Your task to perform on an android device: turn off improve location accuracy Image 0: 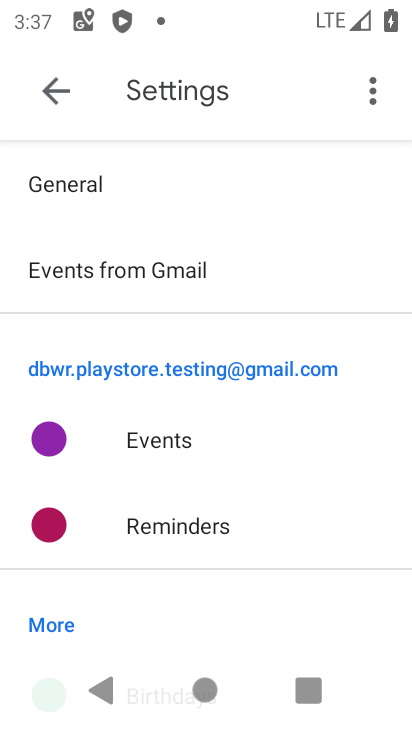
Step 0: press home button
Your task to perform on an android device: turn off improve location accuracy Image 1: 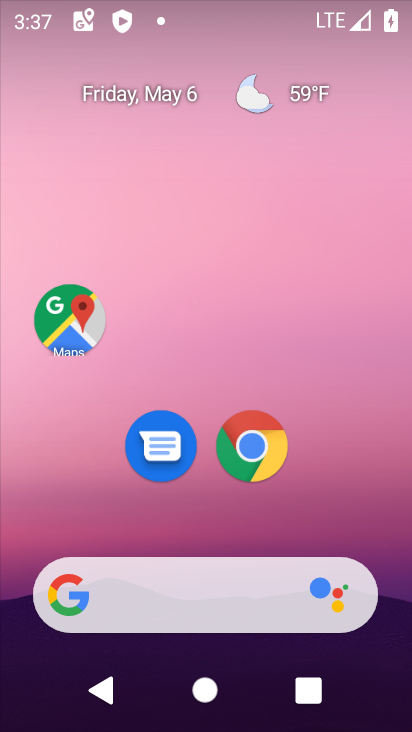
Step 1: drag from (299, 478) to (261, 172)
Your task to perform on an android device: turn off improve location accuracy Image 2: 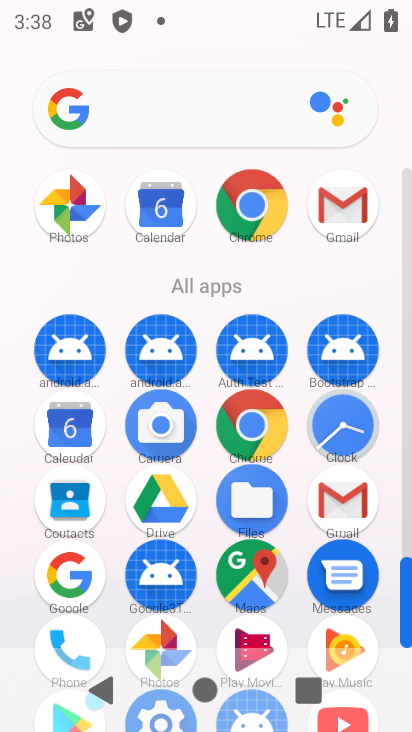
Step 2: drag from (192, 613) to (219, 385)
Your task to perform on an android device: turn off improve location accuracy Image 3: 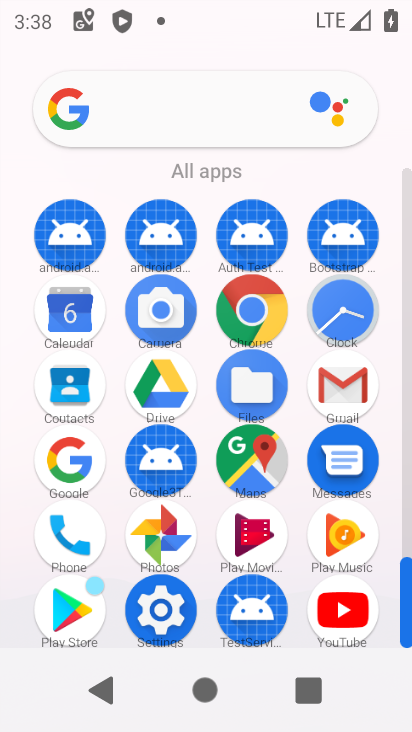
Step 3: click (161, 606)
Your task to perform on an android device: turn off improve location accuracy Image 4: 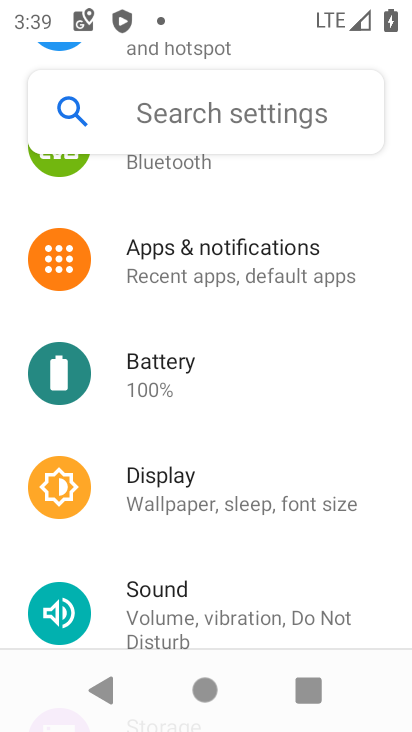
Step 4: drag from (199, 615) to (232, 162)
Your task to perform on an android device: turn off improve location accuracy Image 5: 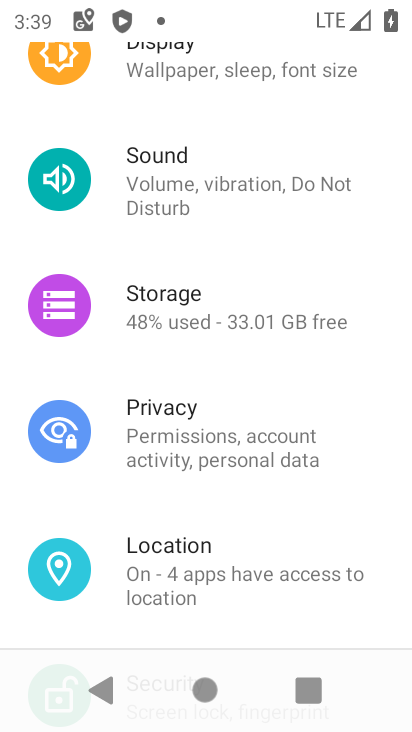
Step 5: drag from (233, 585) to (258, 161)
Your task to perform on an android device: turn off improve location accuracy Image 6: 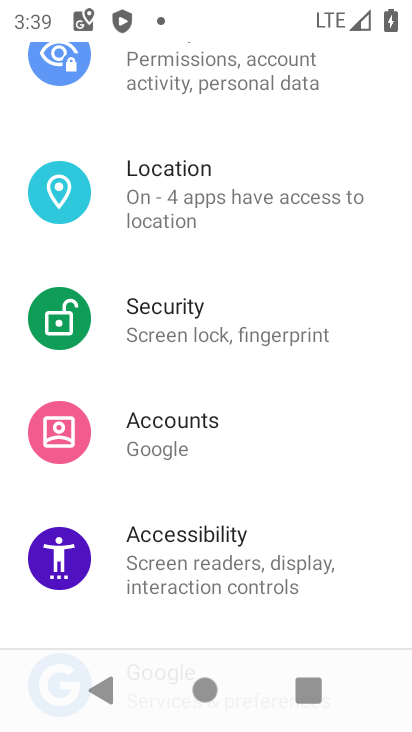
Step 6: drag from (258, 592) to (281, 169)
Your task to perform on an android device: turn off improve location accuracy Image 7: 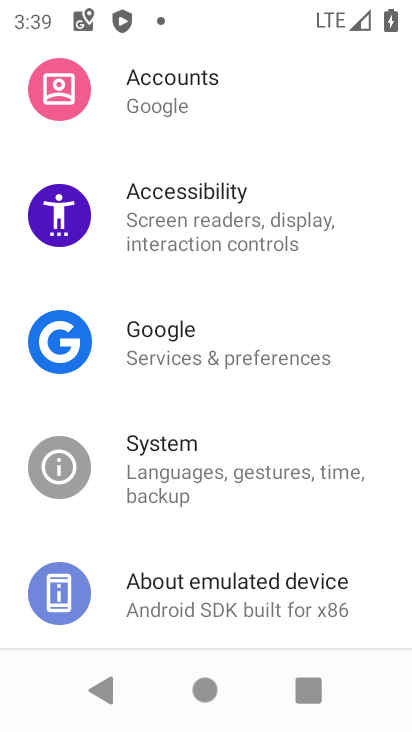
Step 7: drag from (258, 279) to (208, 590)
Your task to perform on an android device: turn off improve location accuracy Image 8: 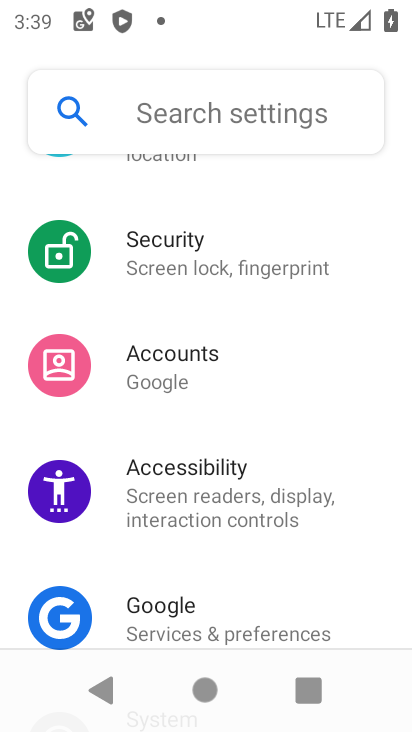
Step 8: drag from (255, 248) to (229, 588)
Your task to perform on an android device: turn off improve location accuracy Image 9: 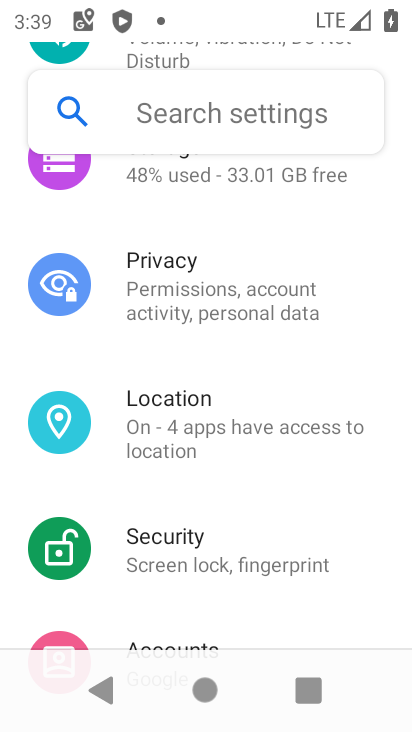
Step 9: click (208, 422)
Your task to perform on an android device: turn off improve location accuracy Image 10: 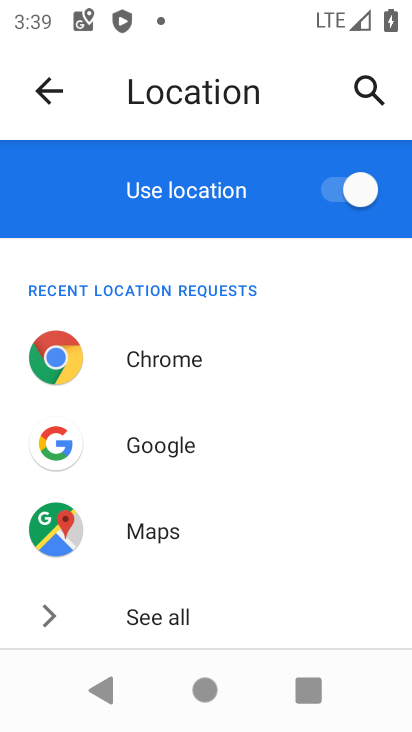
Step 10: drag from (240, 577) to (244, 201)
Your task to perform on an android device: turn off improve location accuracy Image 11: 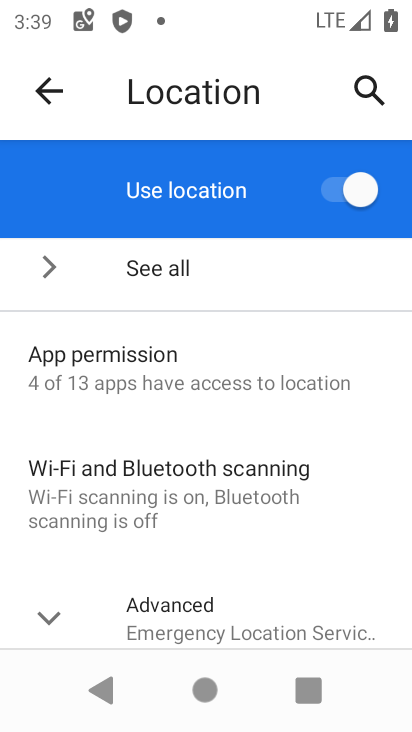
Step 11: drag from (241, 585) to (237, 341)
Your task to perform on an android device: turn off improve location accuracy Image 12: 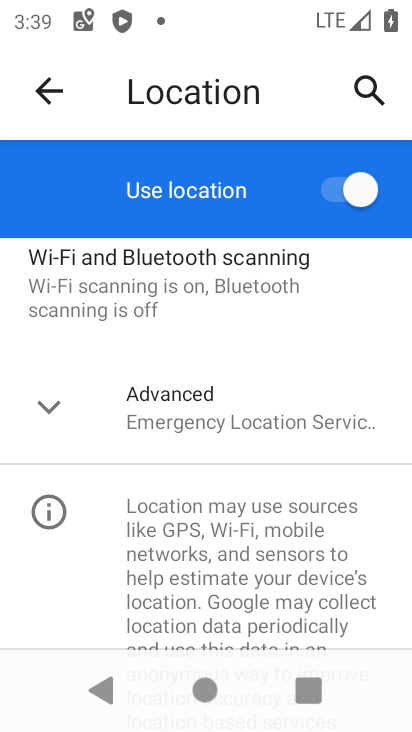
Step 12: click (48, 417)
Your task to perform on an android device: turn off improve location accuracy Image 13: 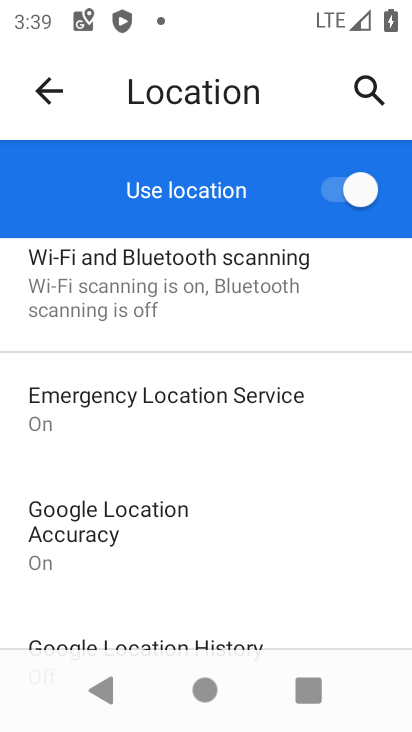
Step 13: drag from (190, 583) to (201, 344)
Your task to perform on an android device: turn off improve location accuracy Image 14: 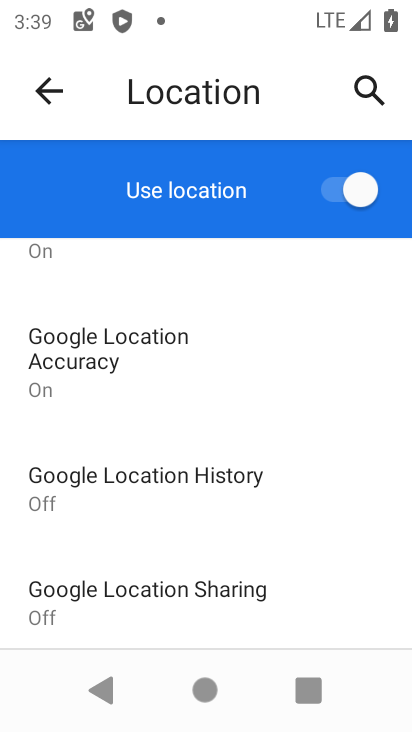
Step 14: click (156, 357)
Your task to perform on an android device: turn off improve location accuracy Image 15: 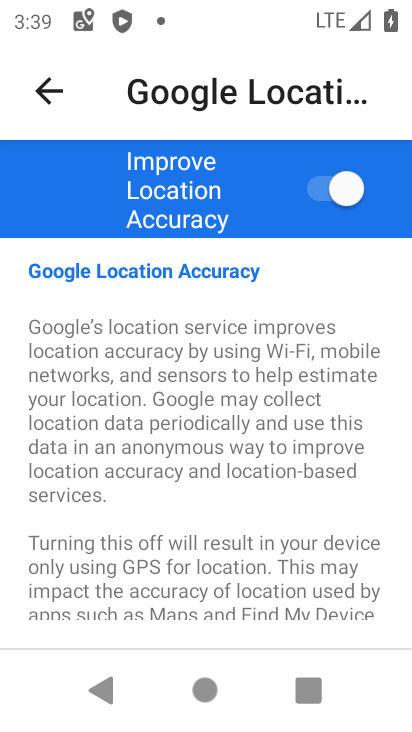
Step 15: click (319, 196)
Your task to perform on an android device: turn off improve location accuracy Image 16: 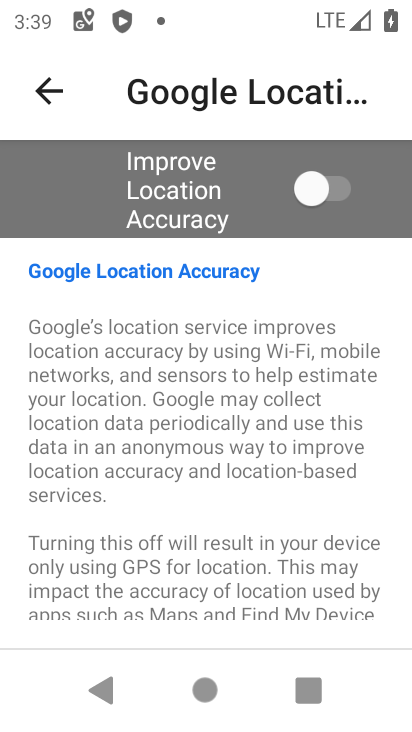
Step 16: task complete